Your task to perform on an android device: Do I have any events tomorrow? Image 0: 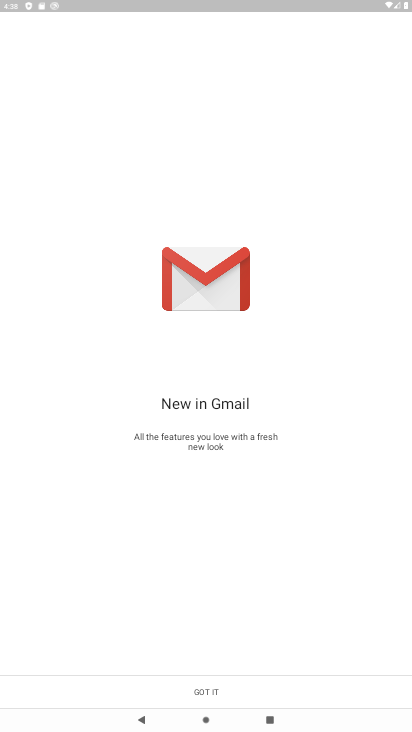
Step 0: press home button
Your task to perform on an android device: Do I have any events tomorrow? Image 1: 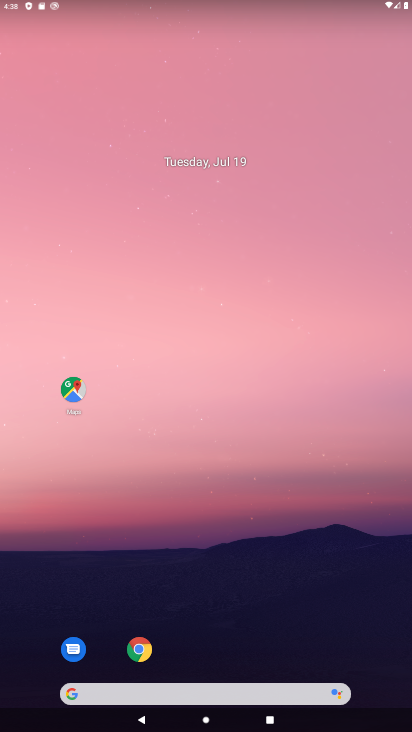
Step 1: drag from (183, 619) to (241, 89)
Your task to perform on an android device: Do I have any events tomorrow? Image 2: 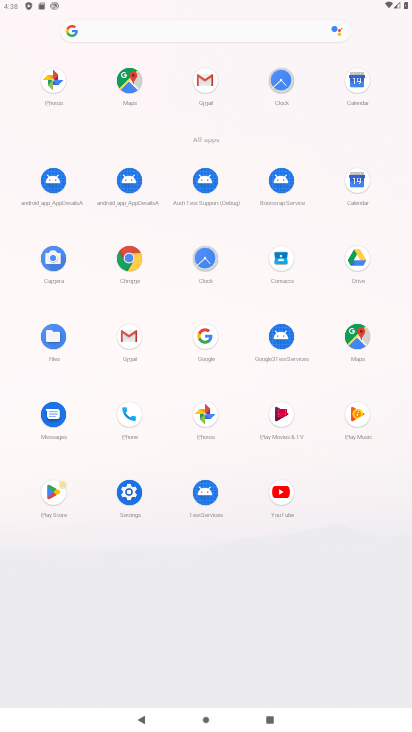
Step 2: click (366, 188)
Your task to perform on an android device: Do I have any events tomorrow? Image 3: 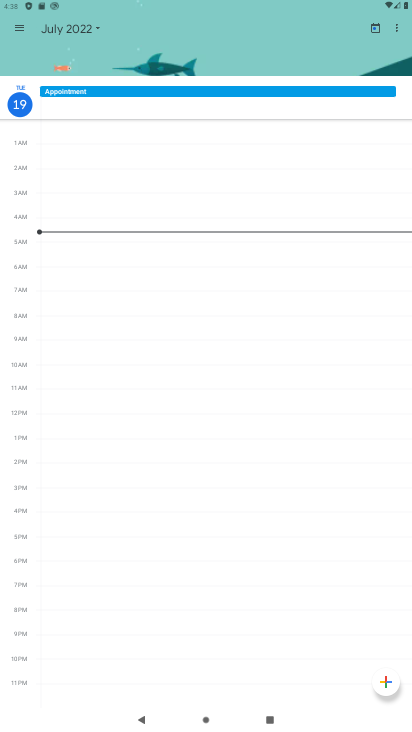
Step 3: click (83, 26)
Your task to perform on an android device: Do I have any events tomorrow? Image 4: 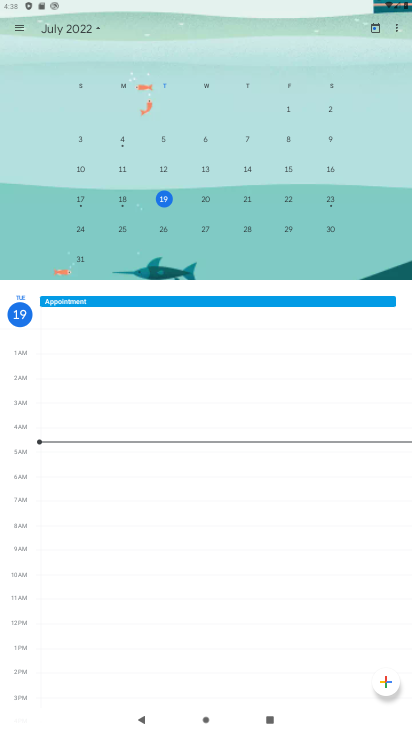
Step 4: click (199, 205)
Your task to perform on an android device: Do I have any events tomorrow? Image 5: 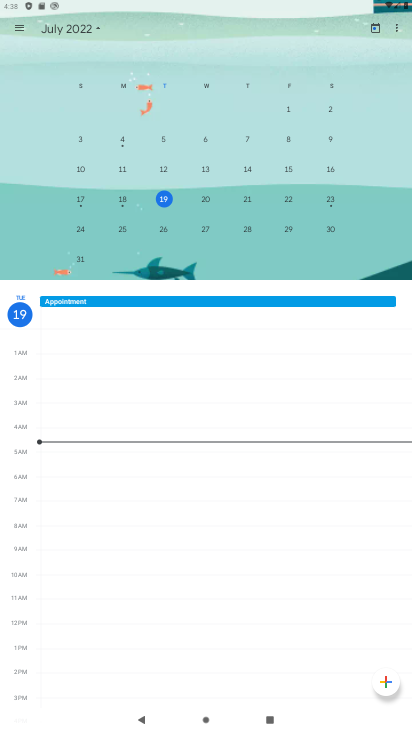
Step 5: click (199, 205)
Your task to perform on an android device: Do I have any events tomorrow? Image 6: 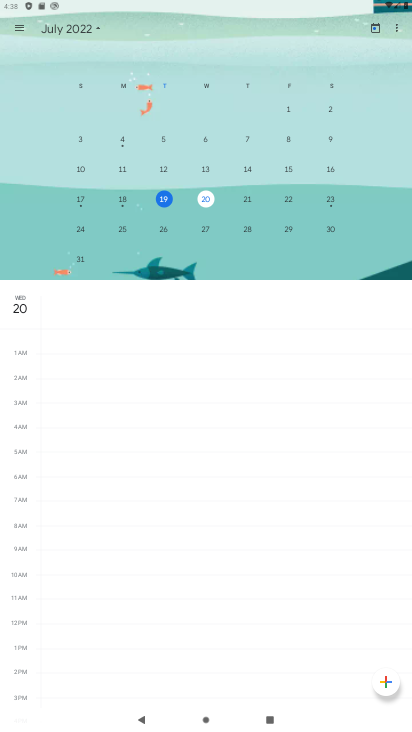
Step 6: task complete